Your task to perform on an android device: toggle translation in the chrome app Image 0: 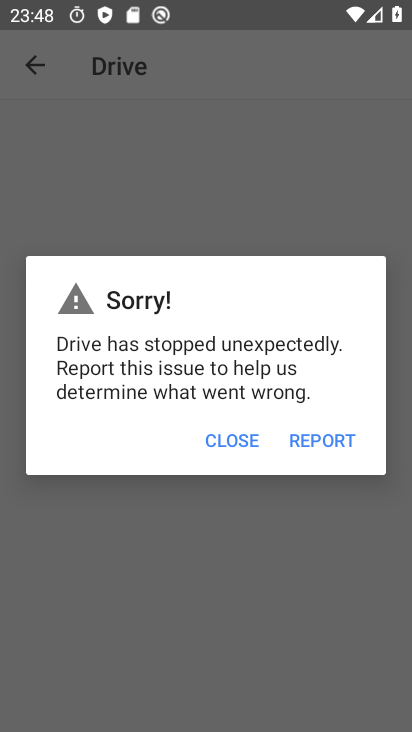
Step 0: click (368, 611)
Your task to perform on an android device: toggle translation in the chrome app Image 1: 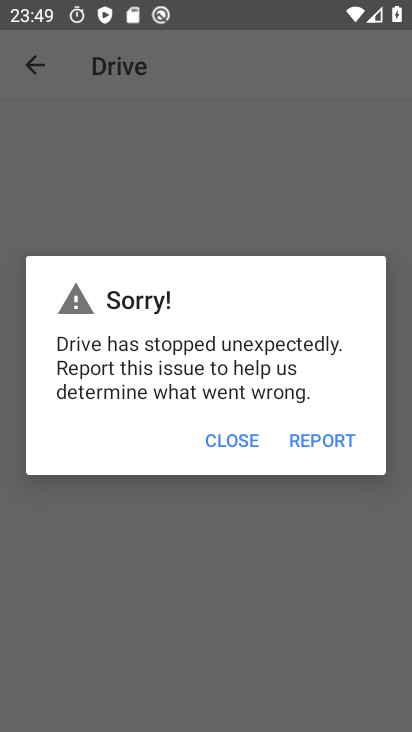
Step 1: press home button
Your task to perform on an android device: toggle translation in the chrome app Image 2: 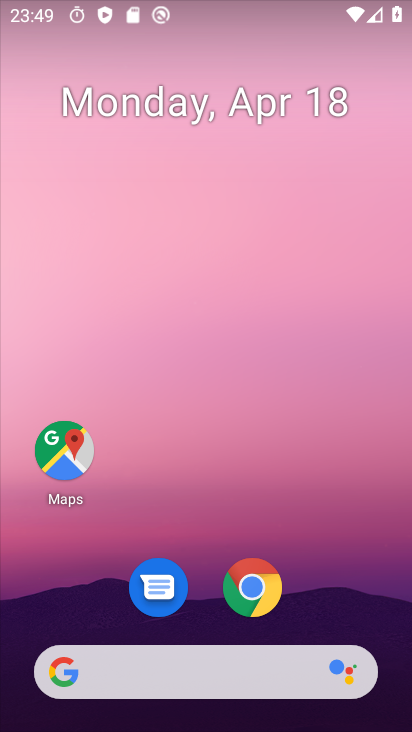
Step 2: click (265, 585)
Your task to perform on an android device: toggle translation in the chrome app Image 3: 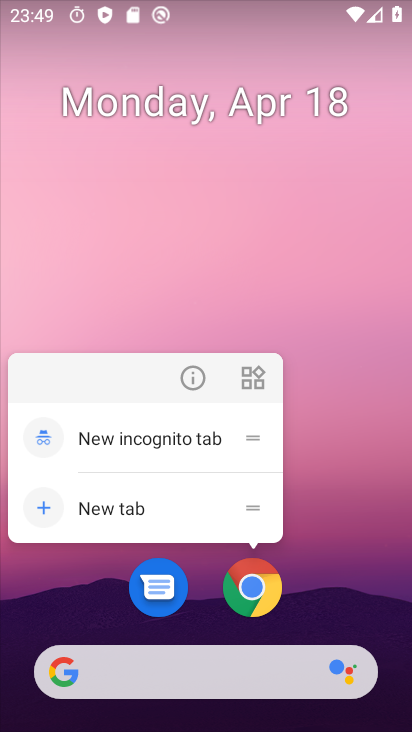
Step 3: click (249, 600)
Your task to perform on an android device: toggle translation in the chrome app Image 4: 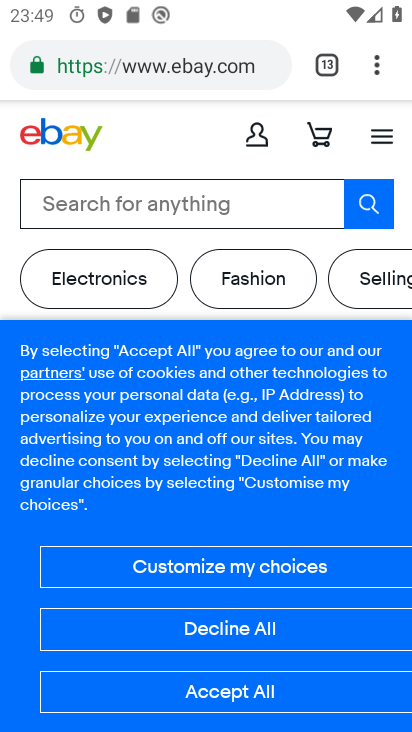
Step 4: click (326, 68)
Your task to perform on an android device: toggle translation in the chrome app Image 5: 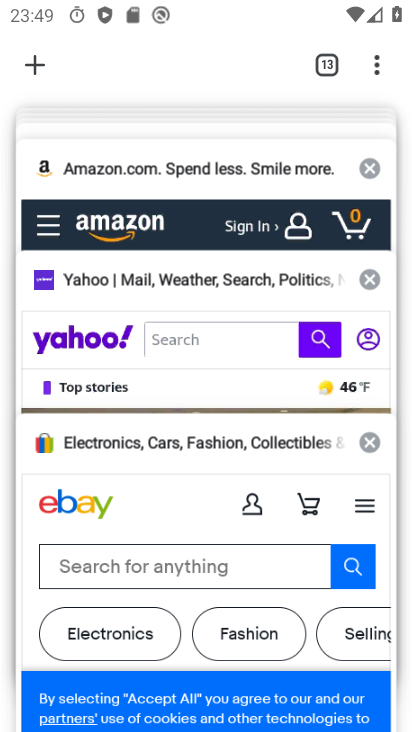
Step 5: click (27, 65)
Your task to perform on an android device: toggle translation in the chrome app Image 6: 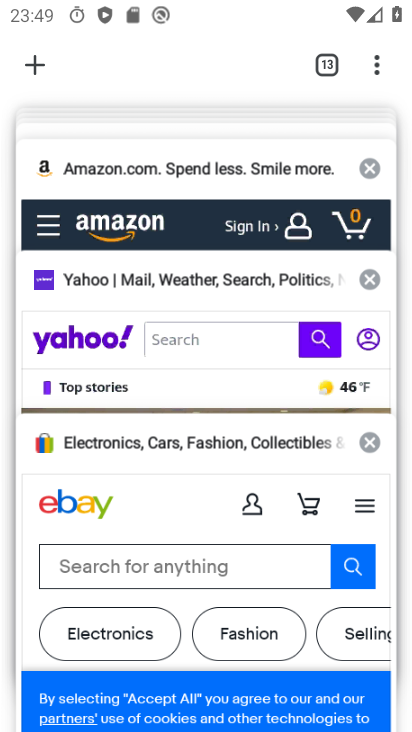
Step 6: click (30, 70)
Your task to perform on an android device: toggle translation in the chrome app Image 7: 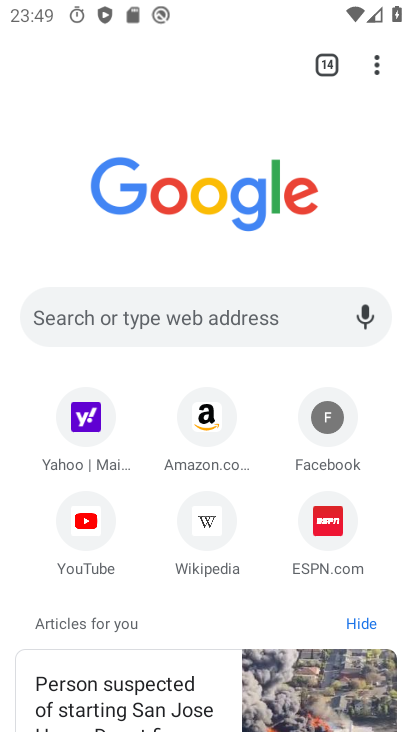
Step 7: click (278, 324)
Your task to perform on an android device: toggle translation in the chrome app Image 8: 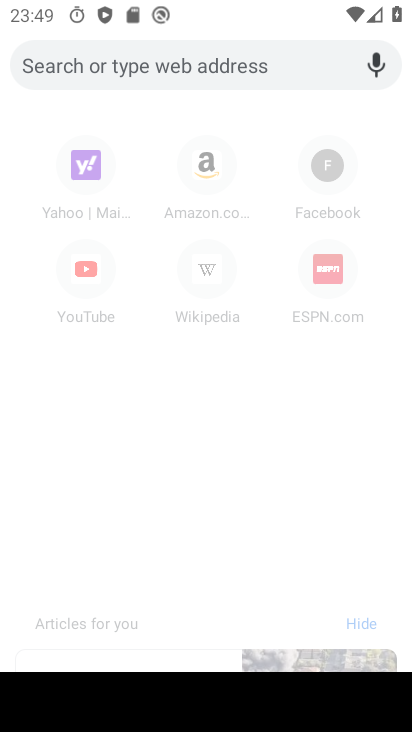
Step 8: click (289, 441)
Your task to perform on an android device: toggle translation in the chrome app Image 9: 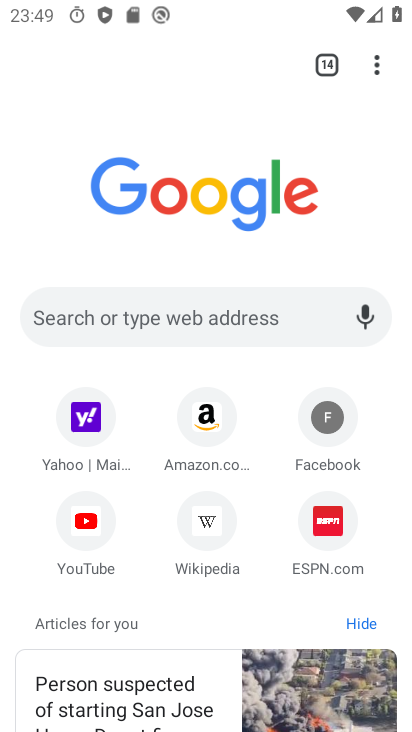
Step 9: click (372, 74)
Your task to perform on an android device: toggle translation in the chrome app Image 10: 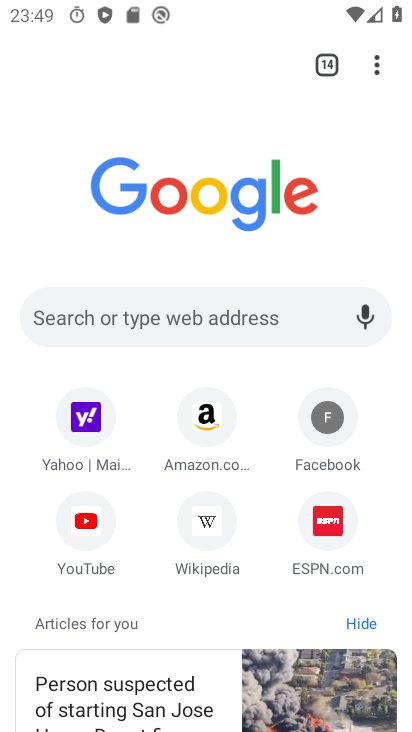
Step 10: click (382, 77)
Your task to perform on an android device: toggle translation in the chrome app Image 11: 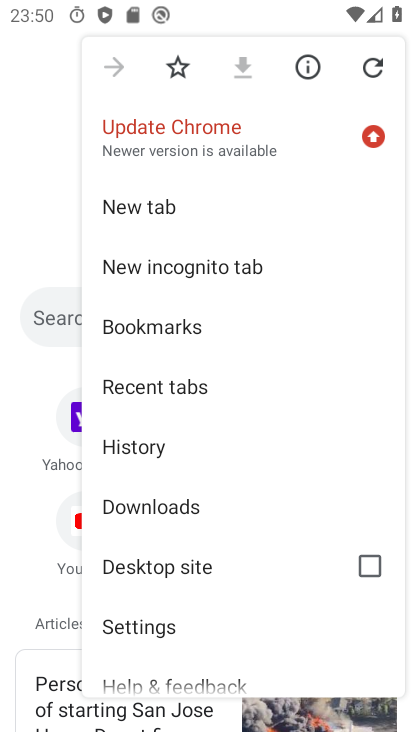
Step 11: drag from (274, 580) to (264, 359)
Your task to perform on an android device: toggle translation in the chrome app Image 12: 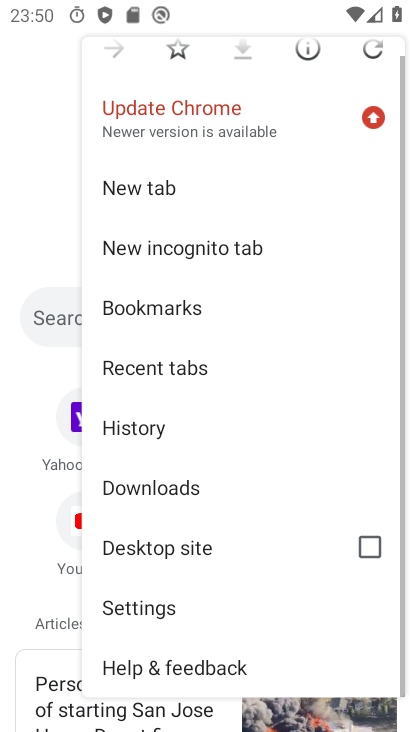
Step 12: click (151, 617)
Your task to perform on an android device: toggle translation in the chrome app Image 13: 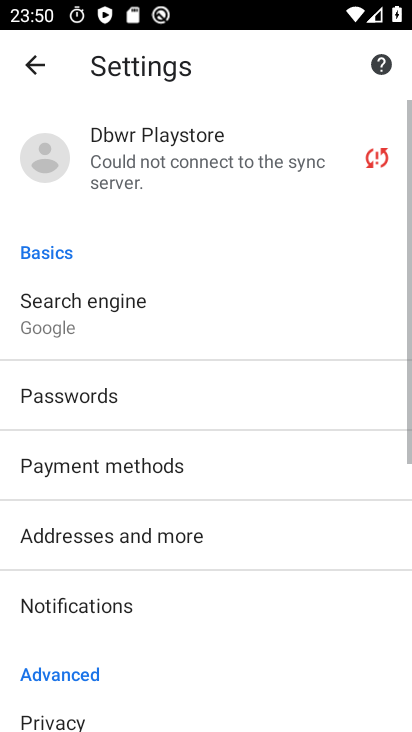
Step 13: drag from (282, 545) to (291, 216)
Your task to perform on an android device: toggle translation in the chrome app Image 14: 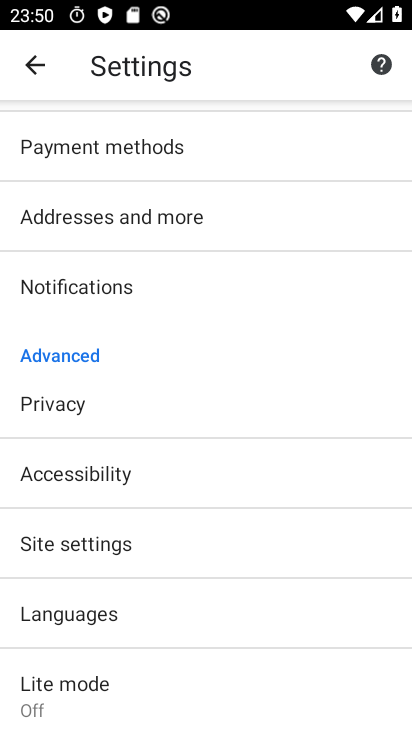
Step 14: drag from (205, 633) to (268, 416)
Your task to perform on an android device: toggle translation in the chrome app Image 15: 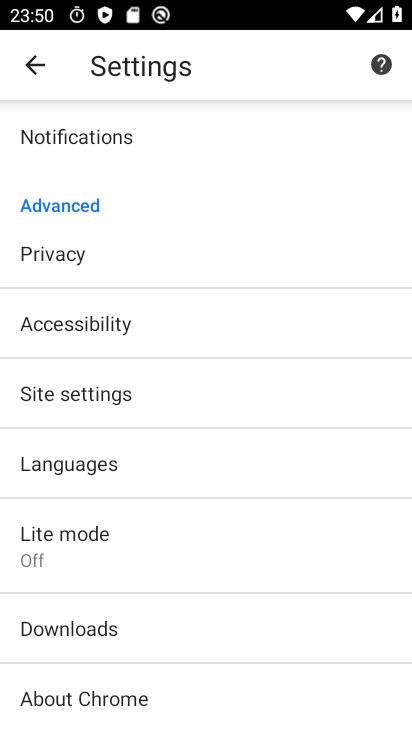
Step 15: click (122, 473)
Your task to perform on an android device: toggle translation in the chrome app Image 16: 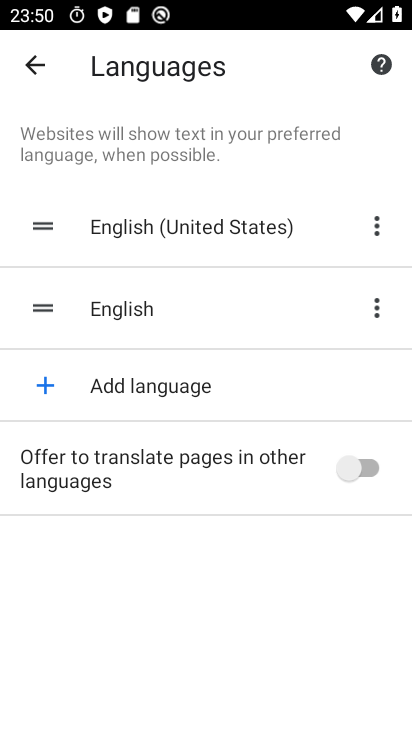
Step 16: click (368, 470)
Your task to perform on an android device: toggle translation in the chrome app Image 17: 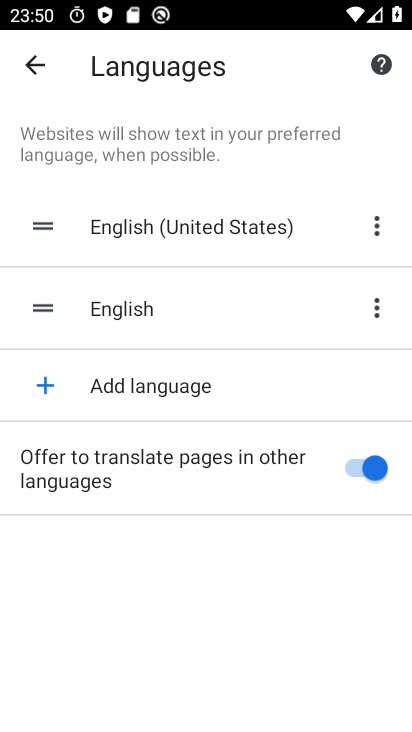
Step 17: task complete